Your task to perform on an android device: turn off airplane mode Image 0: 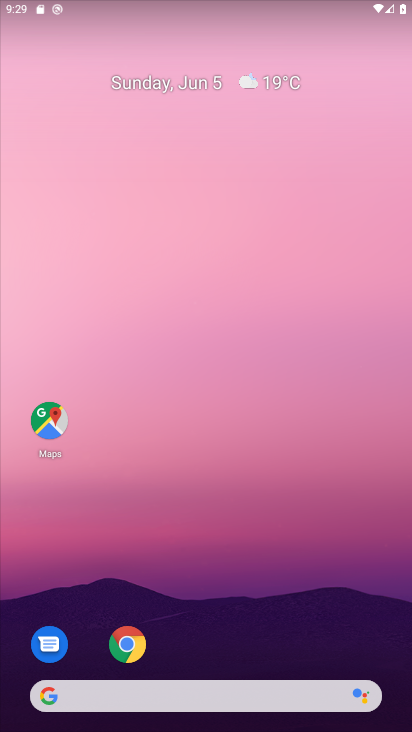
Step 0: drag from (276, 403) to (164, 3)
Your task to perform on an android device: turn off airplane mode Image 1: 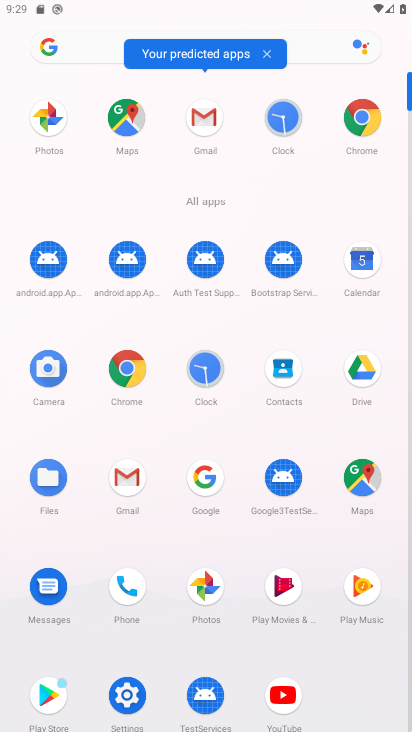
Step 1: click (117, 683)
Your task to perform on an android device: turn off airplane mode Image 2: 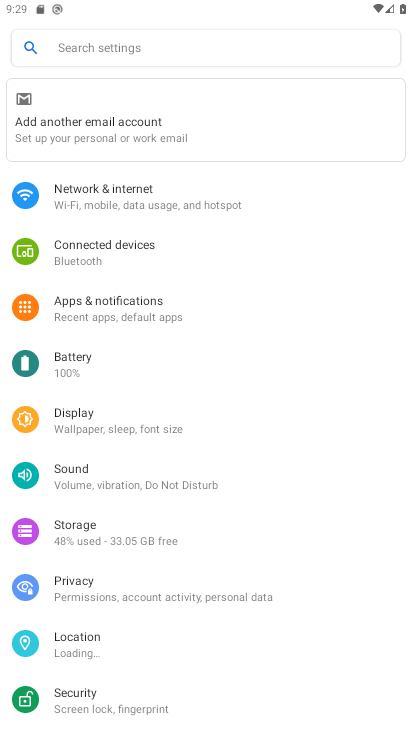
Step 2: click (161, 187)
Your task to perform on an android device: turn off airplane mode Image 3: 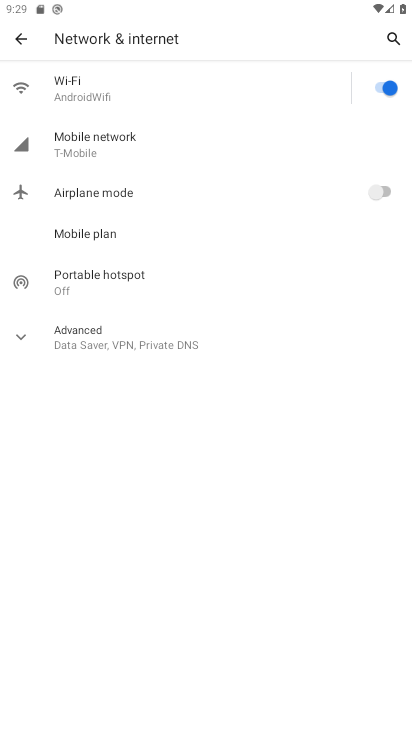
Step 3: task complete